Your task to perform on an android device: allow cookies in the chrome app Image 0: 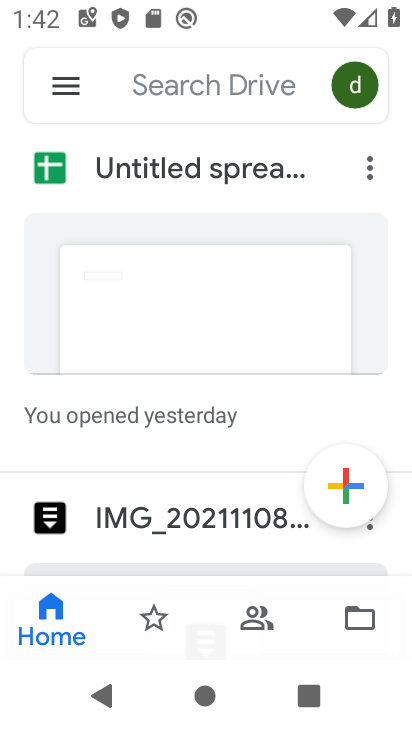
Step 0: press back button
Your task to perform on an android device: allow cookies in the chrome app Image 1: 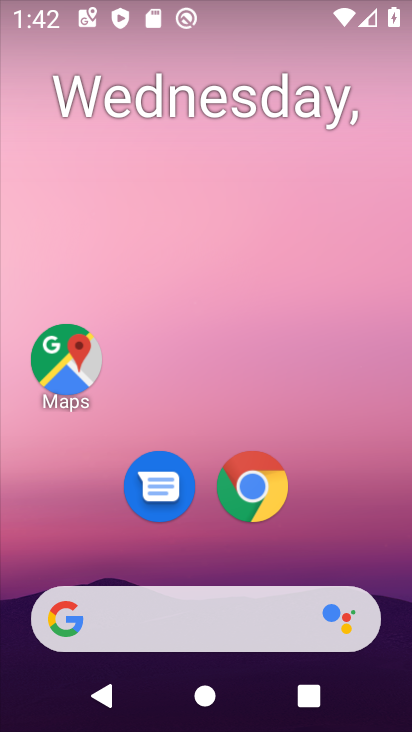
Step 1: click (255, 494)
Your task to perform on an android device: allow cookies in the chrome app Image 2: 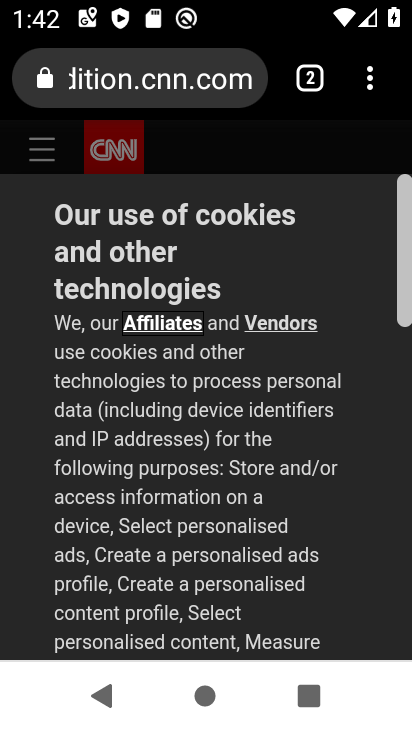
Step 2: drag from (372, 80) to (97, 551)
Your task to perform on an android device: allow cookies in the chrome app Image 3: 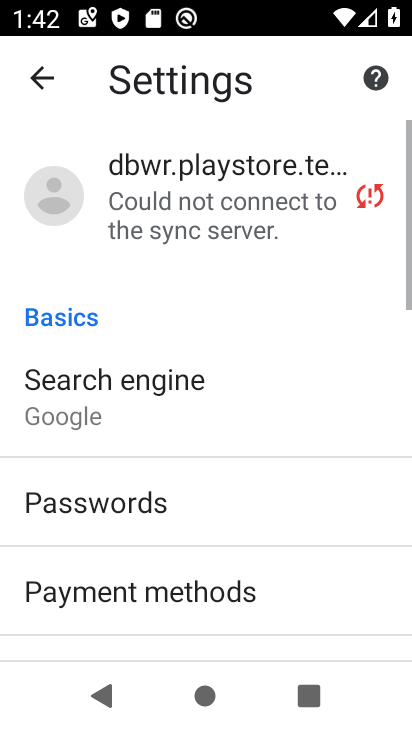
Step 3: drag from (134, 588) to (216, 81)
Your task to perform on an android device: allow cookies in the chrome app Image 4: 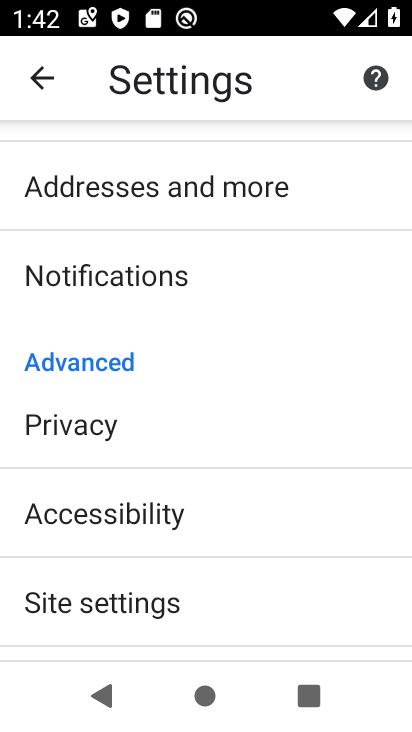
Step 4: click (94, 595)
Your task to perform on an android device: allow cookies in the chrome app Image 5: 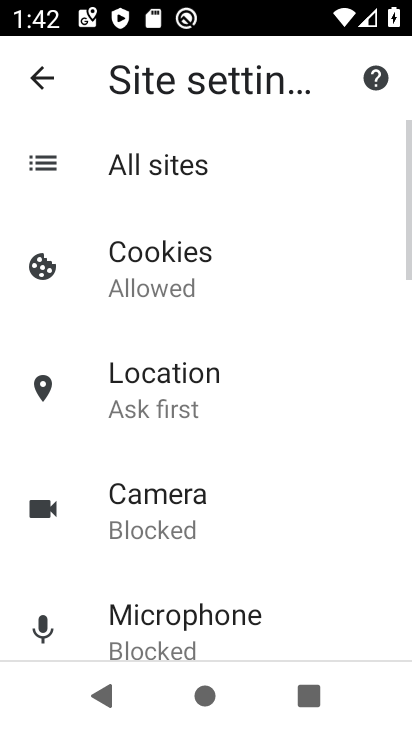
Step 5: click (182, 281)
Your task to perform on an android device: allow cookies in the chrome app Image 6: 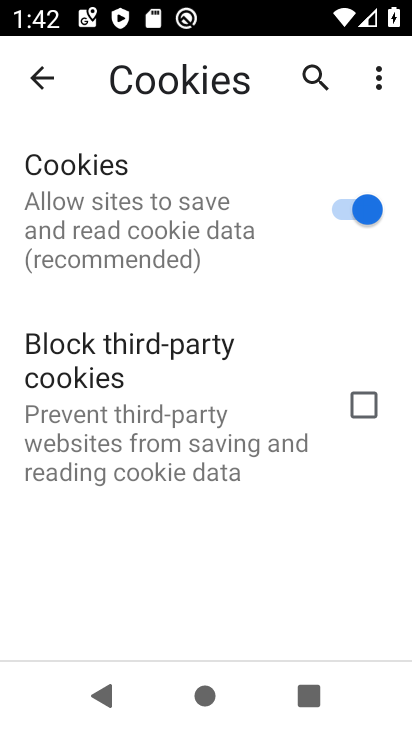
Step 6: task complete